Your task to perform on an android device: toggle pop-ups in chrome Image 0: 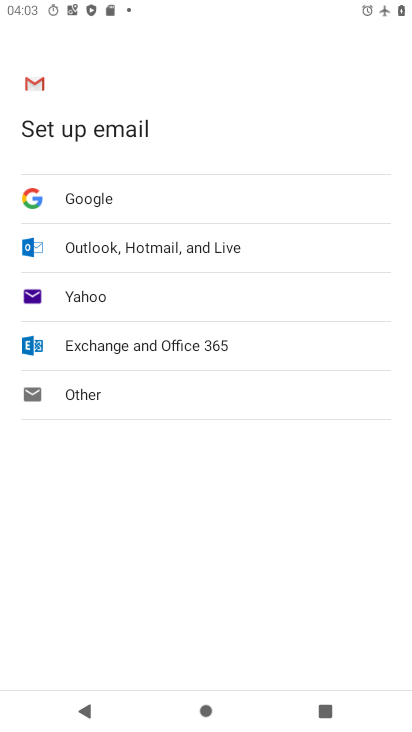
Step 0: press home button
Your task to perform on an android device: toggle pop-ups in chrome Image 1: 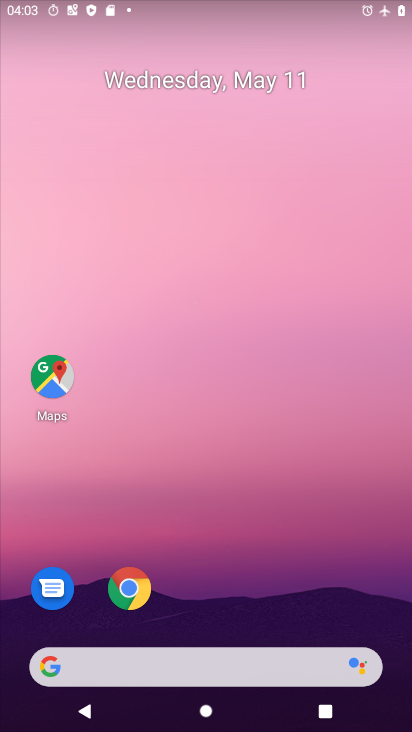
Step 1: click (139, 583)
Your task to perform on an android device: toggle pop-ups in chrome Image 2: 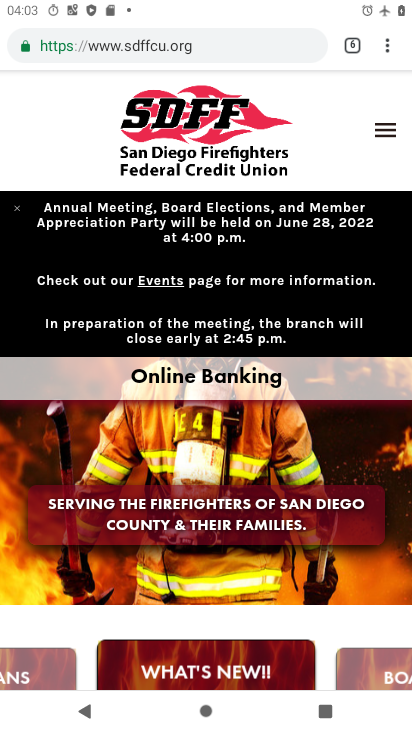
Step 2: drag from (389, 51) to (257, 501)
Your task to perform on an android device: toggle pop-ups in chrome Image 3: 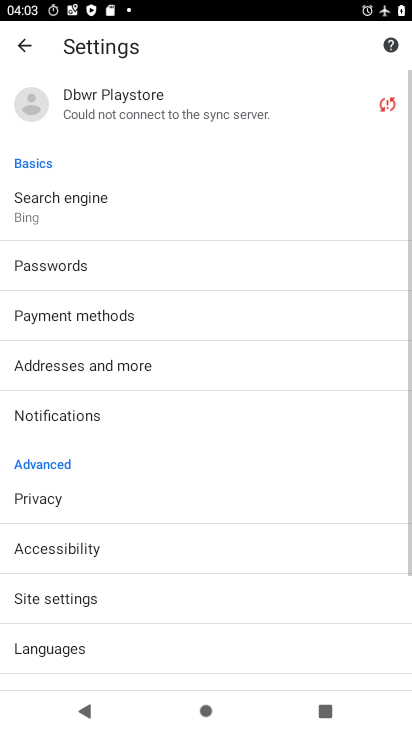
Step 3: drag from (156, 594) to (163, 332)
Your task to perform on an android device: toggle pop-ups in chrome Image 4: 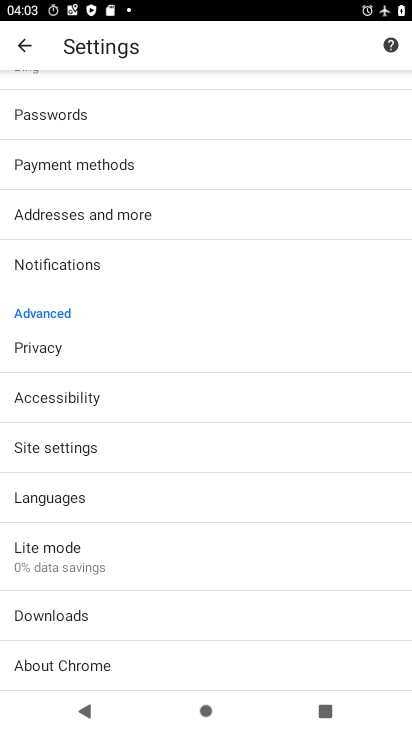
Step 4: click (99, 445)
Your task to perform on an android device: toggle pop-ups in chrome Image 5: 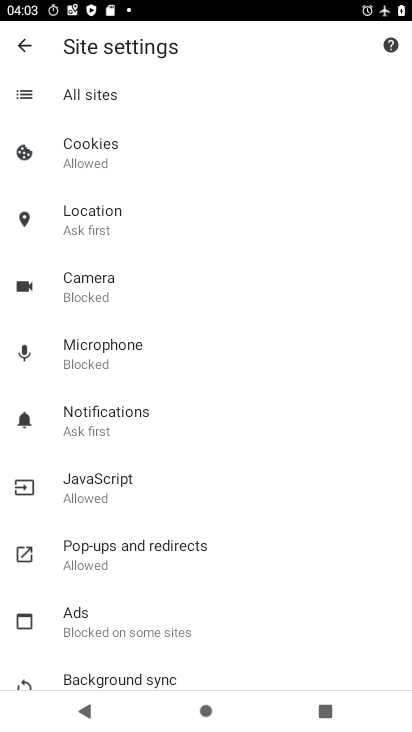
Step 5: click (159, 541)
Your task to perform on an android device: toggle pop-ups in chrome Image 6: 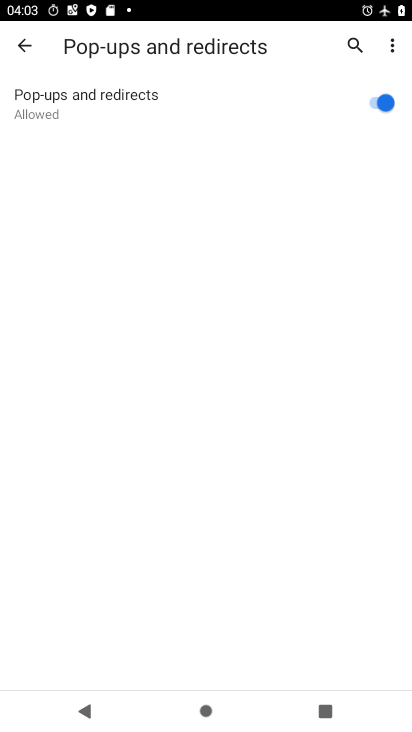
Step 6: click (377, 100)
Your task to perform on an android device: toggle pop-ups in chrome Image 7: 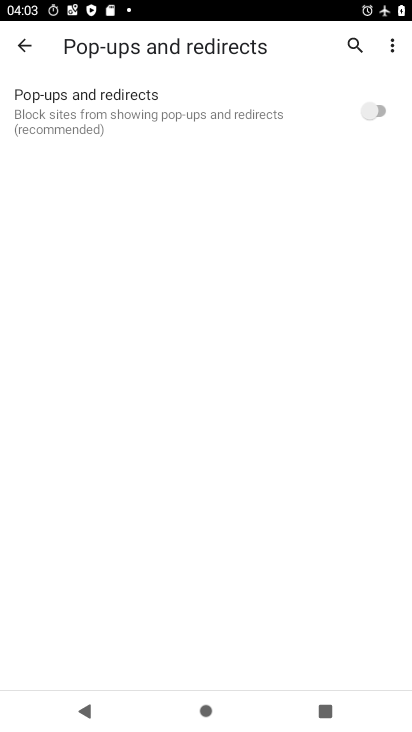
Step 7: task complete